Your task to perform on an android device: clear all cookies in the chrome app Image 0: 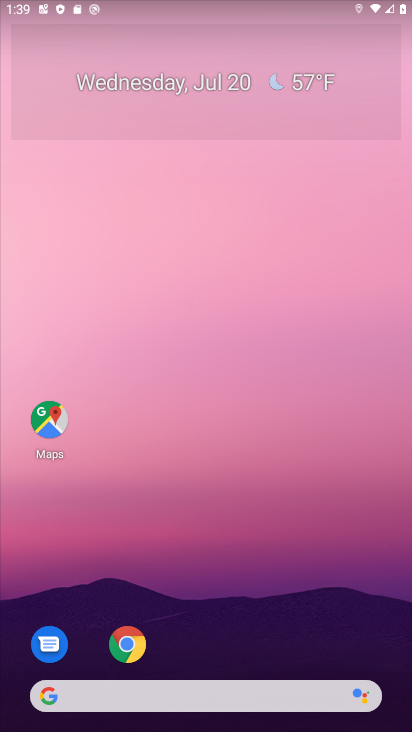
Step 0: drag from (260, 509) to (231, 0)
Your task to perform on an android device: clear all cookies in the chrome app Image 1: 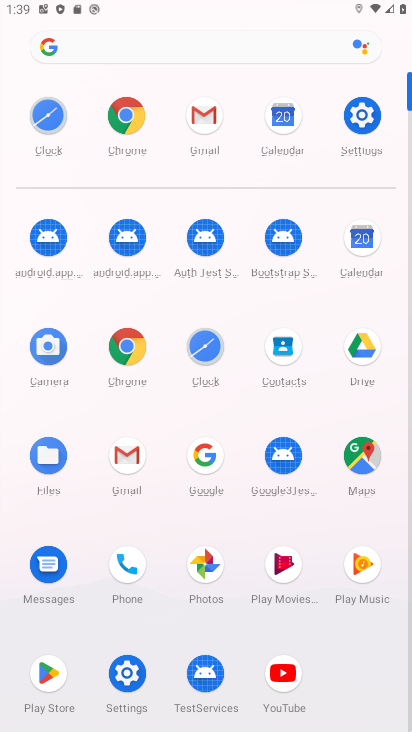
Step 1: click (124, 113)
Your task to perform on an android device: clear all cookies in the chrome app Image 2: 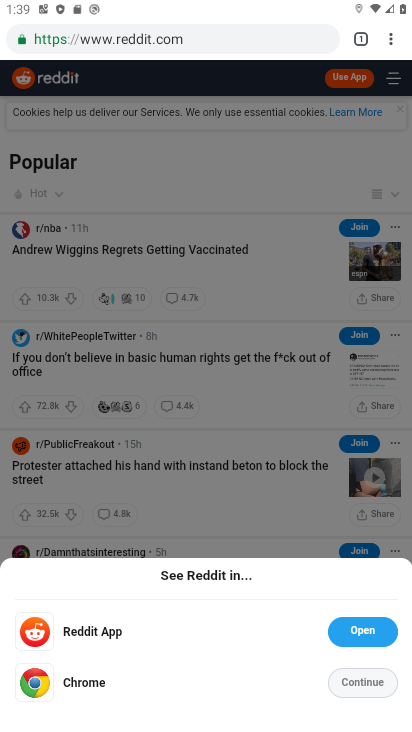
Step 2: drag from (393, 42) to (257, 519)
Your task to perform on an android device: clear all cookies in the chrome app Image 3: 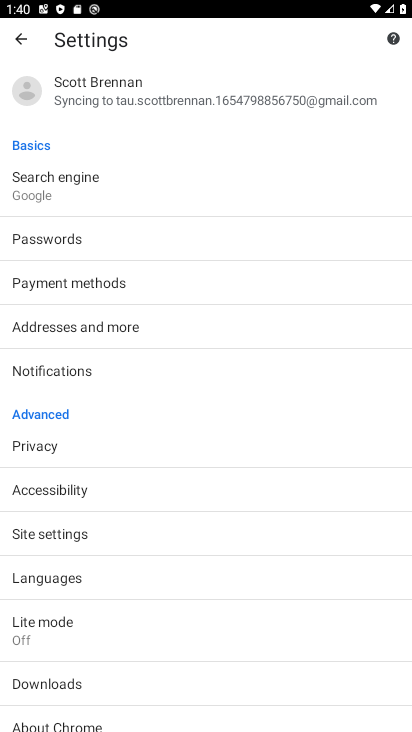
Step 3: click (22, 445)
Your task to perform on an android device: clear all cookies in the chrome app Image 4: 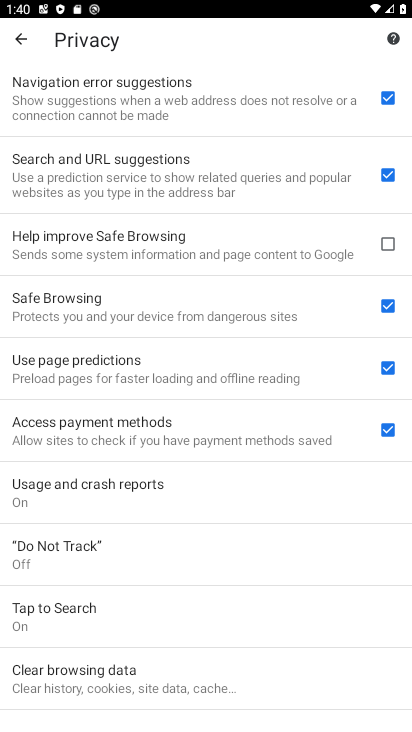
Step 4: click (118, 678)
Your task to perform on an android device: clear all cookies in the chrome app Image 5: 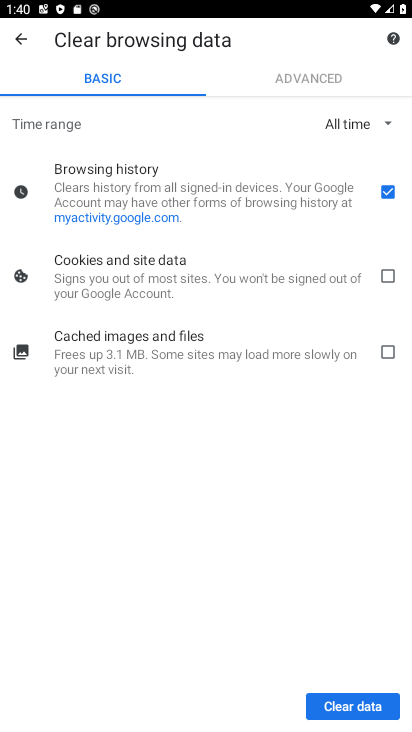
Step 5: click (390, 190)
Your task to perform on an android device: clear all cookies in the chrome app Image 6: 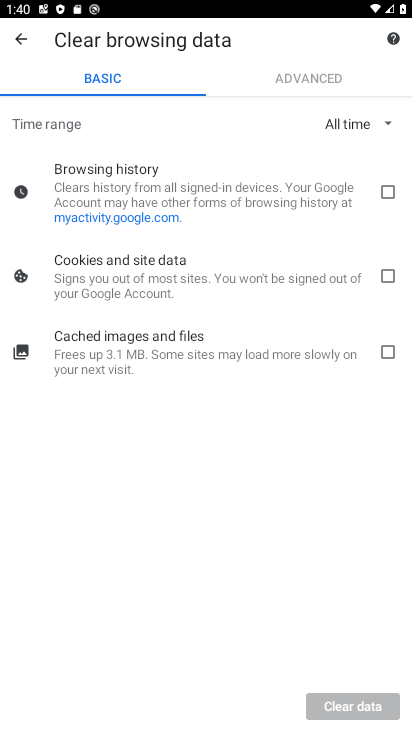
Step 6: click (387, 280)
Your task to perform on an android device: clear all cookies in the chrome app Image 7: 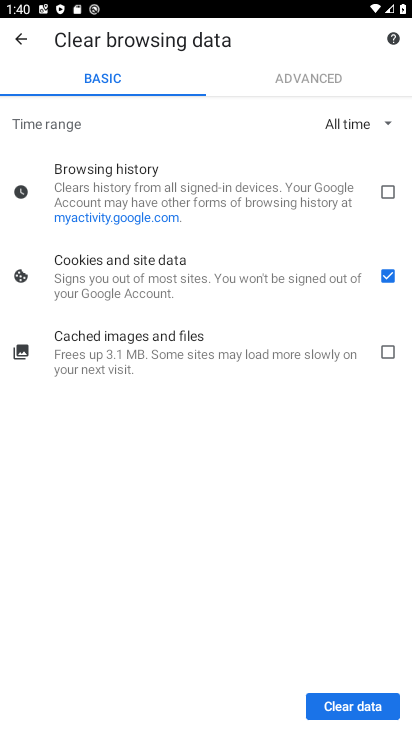
Step 7: click (352, 710)
Your task to perform on an android device: clear all cookies in the chrome app Image 8: 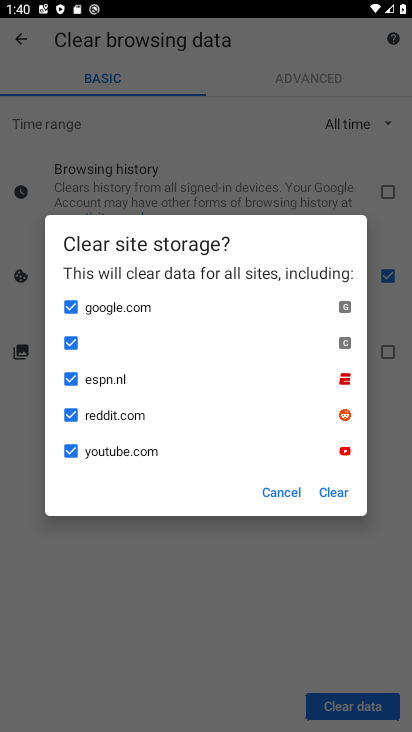
Step 8: click (330, 495)
Your task to perform on an android device: clear all cookies in the chrome app Image 9: 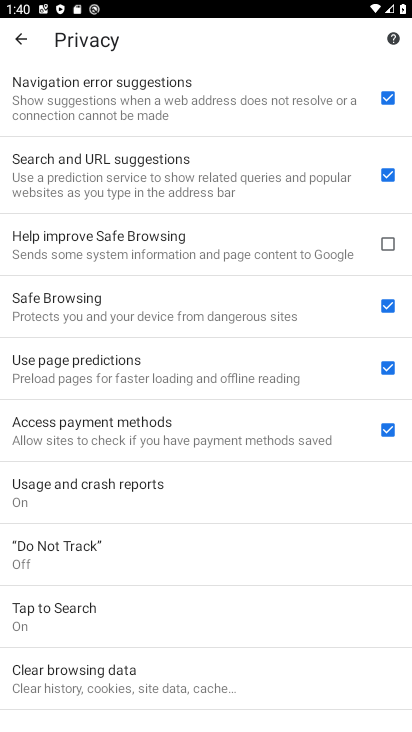
Step 9: task complete